Your task to perform on an android device: turn on sleep mode Image 0: 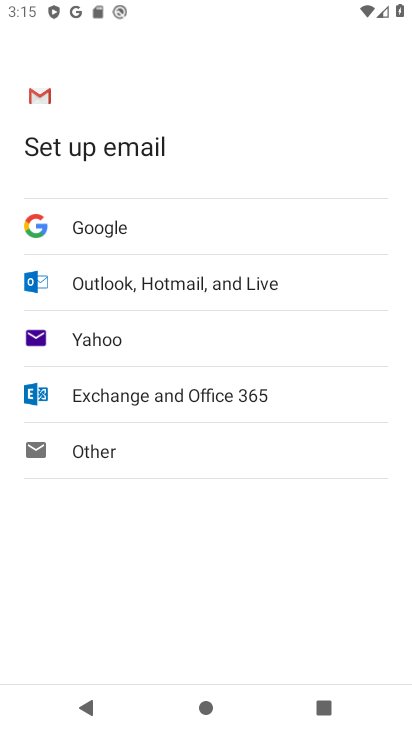
Step 0: press home button
Your task to perform on an android device: turn on sleep mode Image 1: 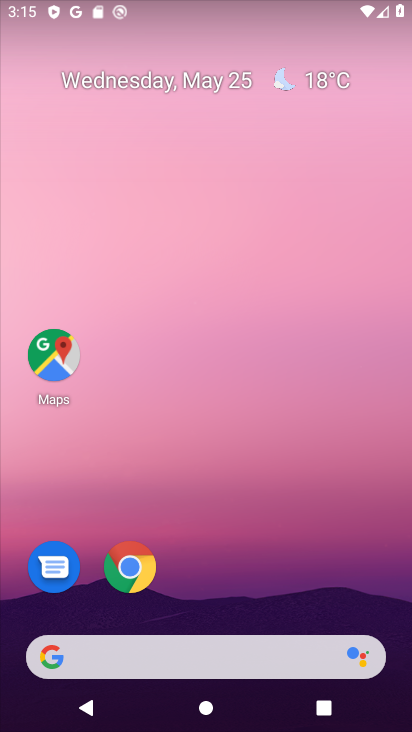
Step 1: drag from (372, 612) to (364, 117)
Your task to perform on an android device: turn on sleep mode Image 2: 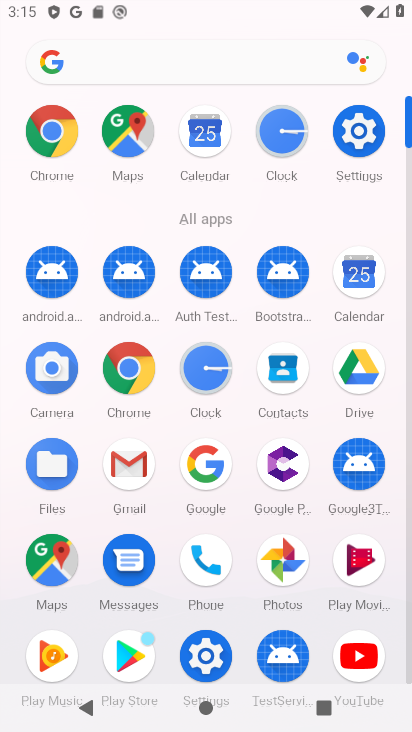
Step 2: click (357, 140)
Your task to perform on an android device: turn on sleep mode Image 3: 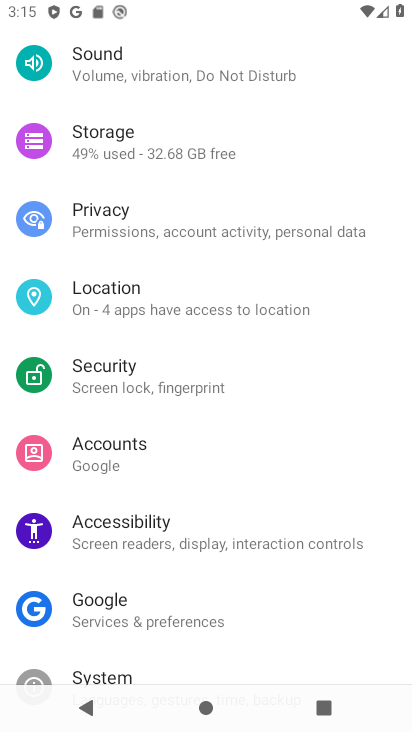
Step 3: drag from (360, 403) to (346, 244)
Your task to perform on an android device: turn on sleep mode Image 4: 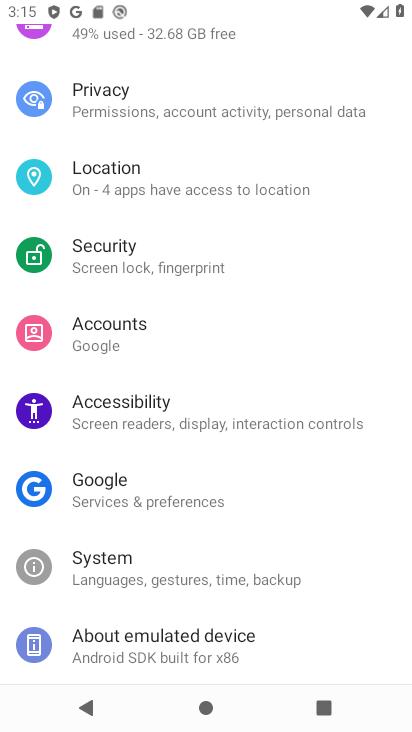
Step 4: drag from (309, 533) to (308, 367)
Your task to perform on an android device: turn on sleep mode Image 5: 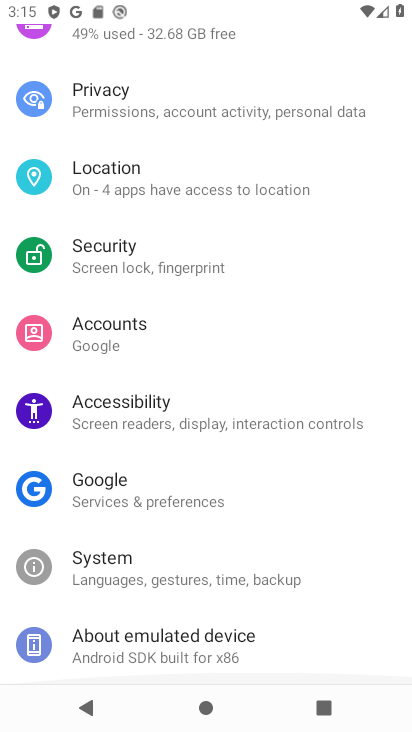
Step 5: drag from (303, 264) to (326, 424)
Your task to perform on an android device: turn on sleep mode Image 6: 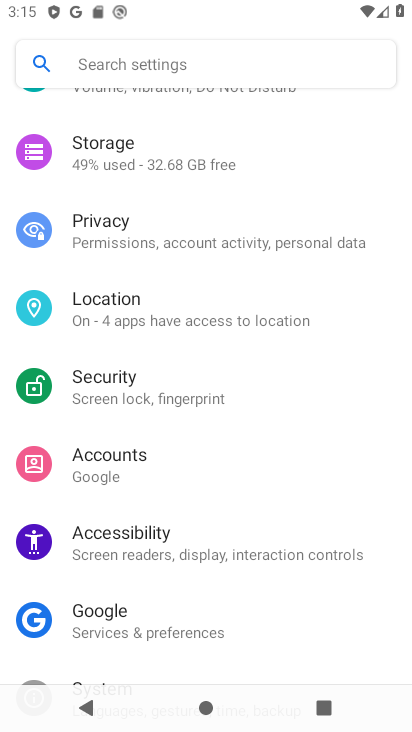
Step 6: drag from (344, 194) to (348, 365)
Your task to perform on an android device: turn on sleep mode Image 7: 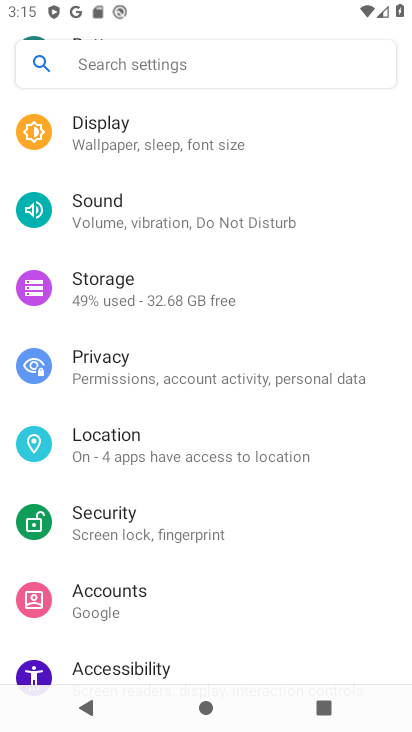
Step 7: drag from (357, 199) to (365, 340)
Your task to perform on an android device: turn on sleep mode Image 8: 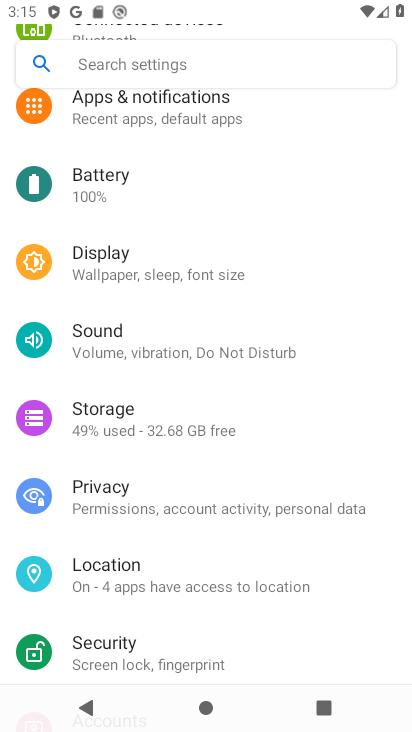
Step 8: drag from (342, 180) to (351, 305)
Your task to perform on an android device: turn on sleep mode Image 9: 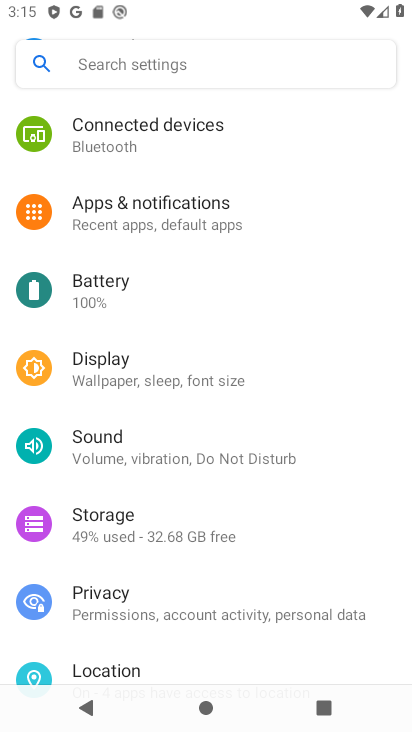
Step 9: drag from (348, 213) to (349, 345)
Your task to perform on an android device: turn on sleep mode Image 10: 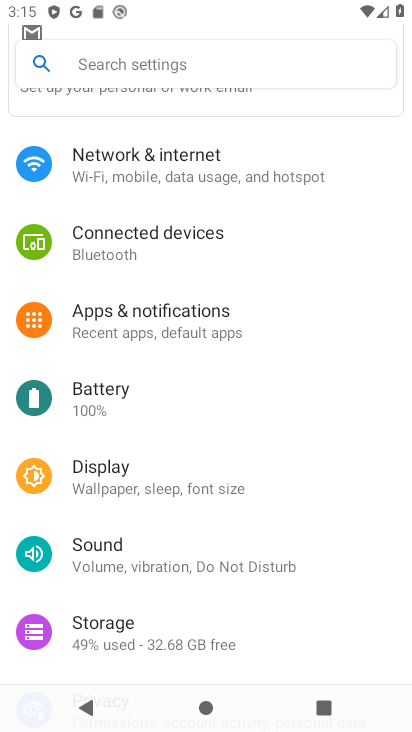
Step 10: click (229, 506)
Your task to perform on an android device: turn on sleep mode Image 11: 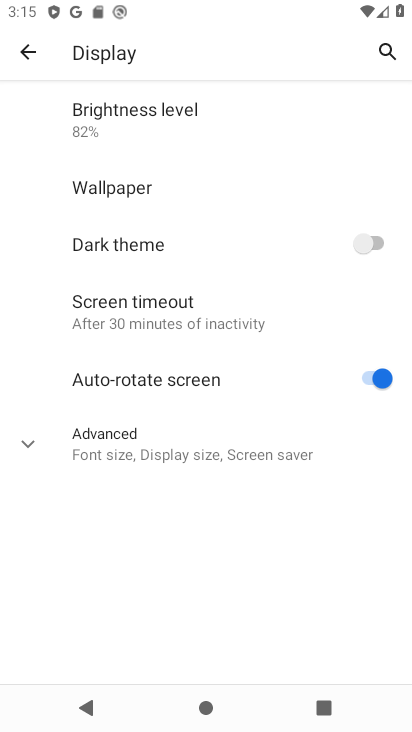
Step 11: click (260, 449)
Your task to perform on an android device: turn on sleep mode Image 12: 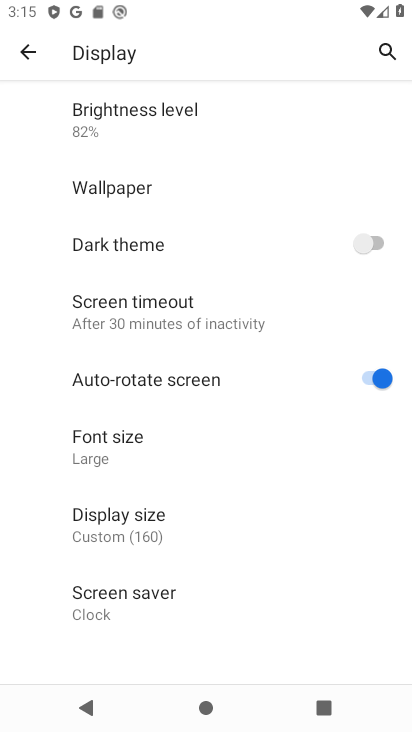
Step 12: task complete